Your task to perform on an android device: change notifications settings Image 0: 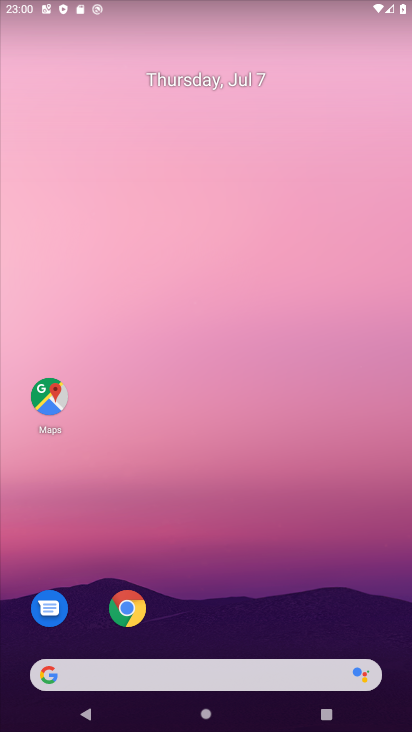
Step 0: drag from (228, 577) to (222, 234)
Your task to perform on an android device: change notifications settings Image 1: 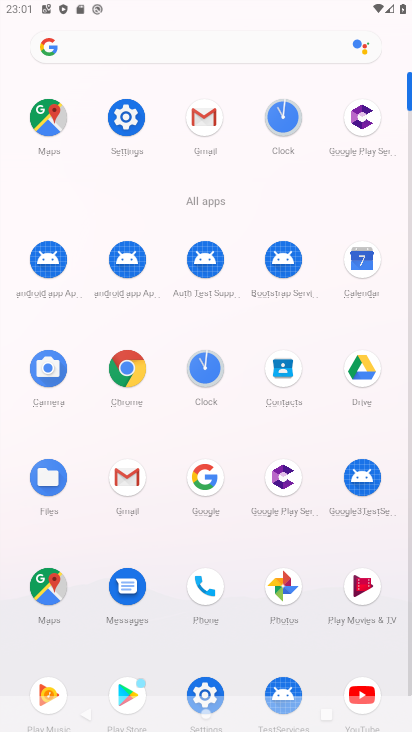
Step 1: click (126, 124)
Your task to perform on an android device: change notifications settings Image 2: 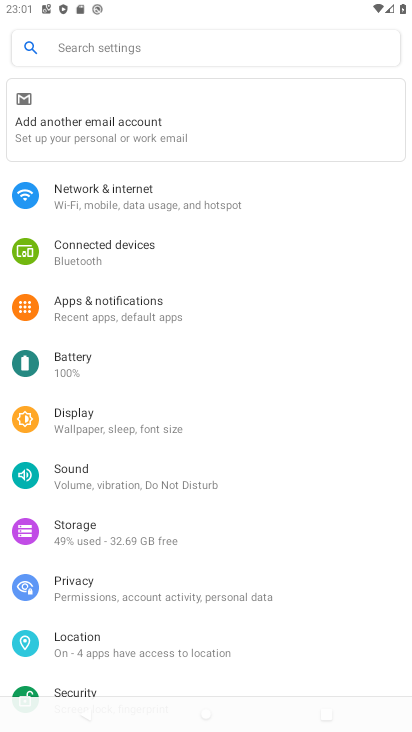
Step 2: click (118, 302)
Your task to perform on an android device: change notifications settings Image 3: 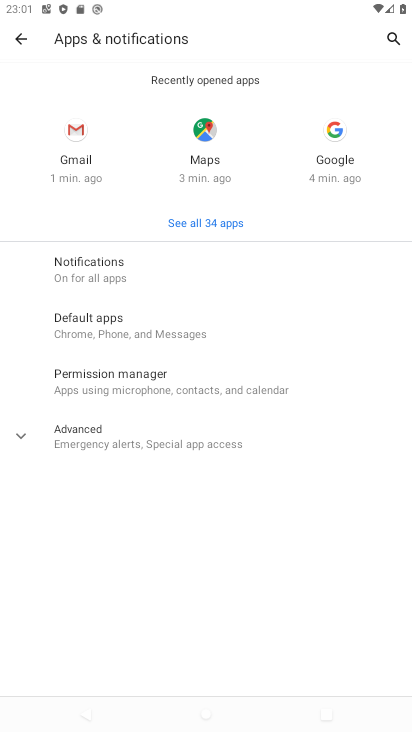
Step 3: click (97, 270)
Your task to perform on an android device: change notifications settings Image 4: 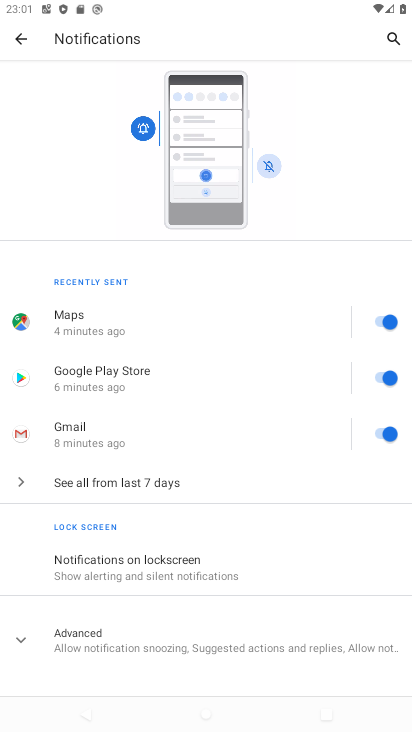
Step 4: click (148, 479)
Your task to perform on an android device: change notifications settings Image 5: 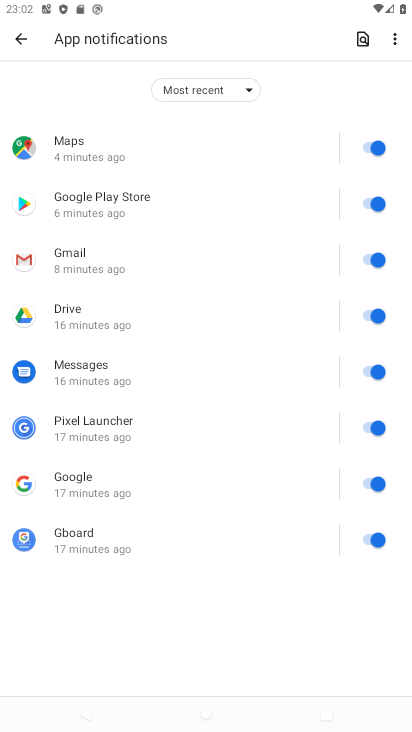
Step 5: click (382, 141)
Your task to perform on an android device: change notifications settings Image 6: 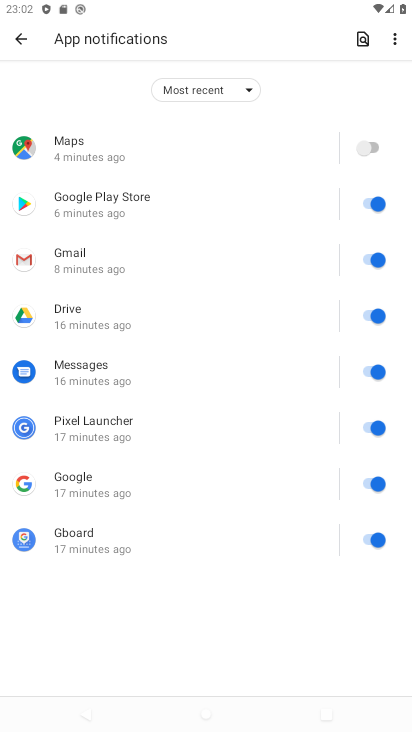
Step 6: click (371, 203)
Your task to perform on an android device: change notifications settings Image 7: 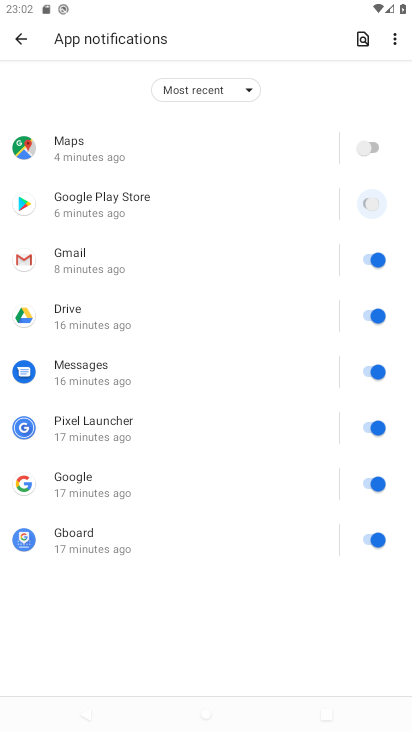
Step 7: click (366, 261)
Your task to perform on an android device: change notifications settings Image 8: 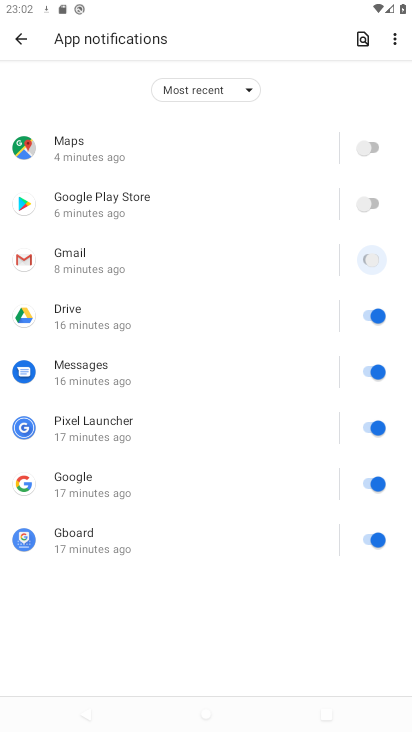
Step 8: click (369, 323)
Your task to perform on an android device: change notifications settings Image 9: 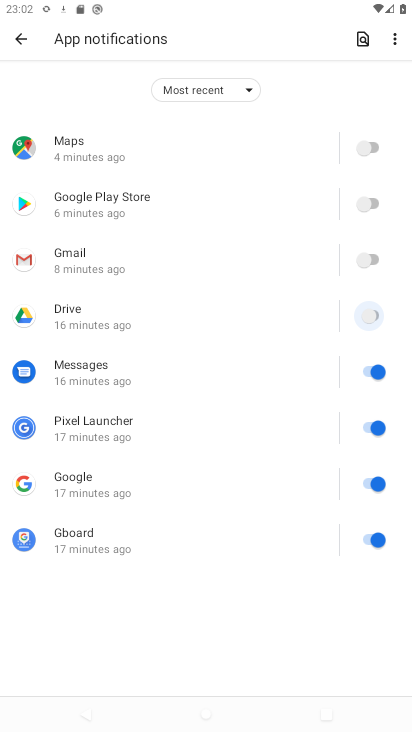
Step 9: click (369, 368)
Your task to perform on an android device: change notifications settings Image 10: 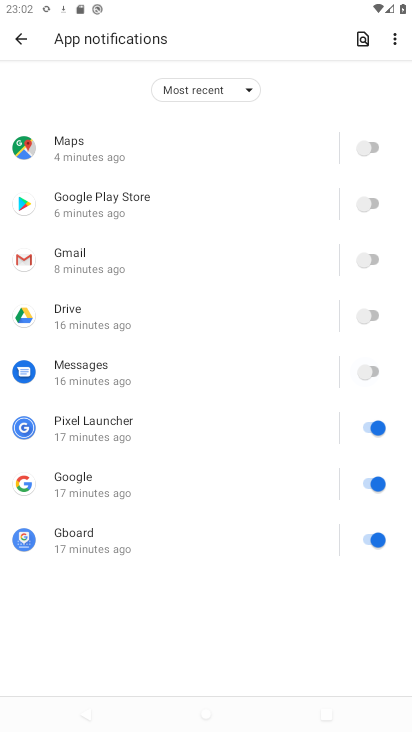
Step 10: click (361, 424)
Your task to perform on an android device: change notifications settings Image 11: 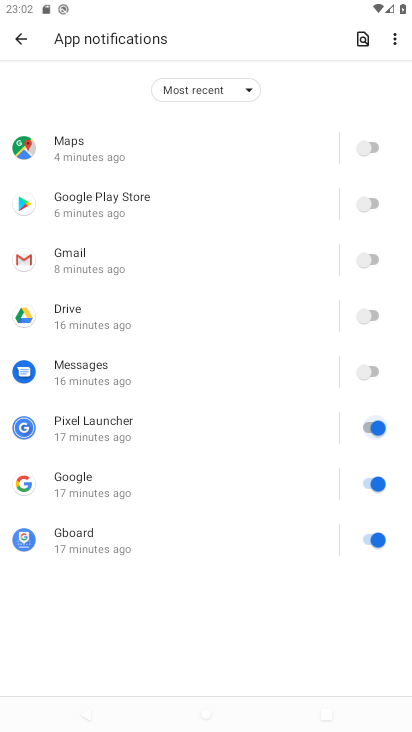
Step 11: click (373, 464)
Your task to perform on an android device: change notifications settings Image 12: 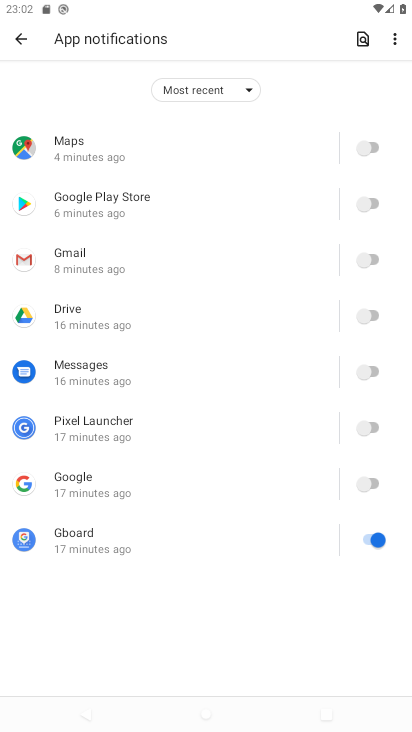
Step 12: click (375, 530)
Your task to perform on an android device: change notifications settings Image 13: 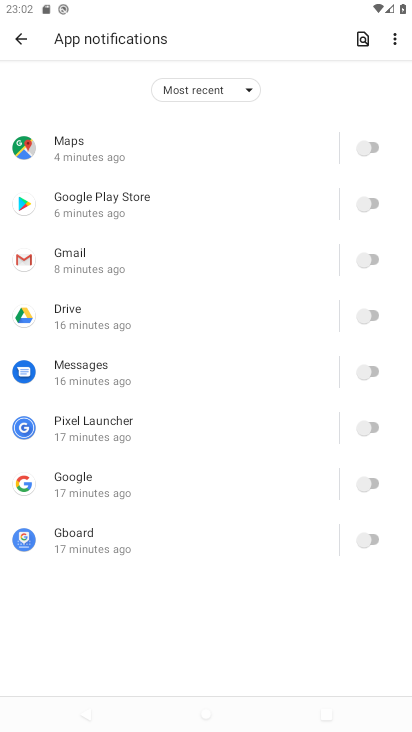
Step 13: task complete